Your task to perform on an android device: set default search engine in the chrome app Image 0: 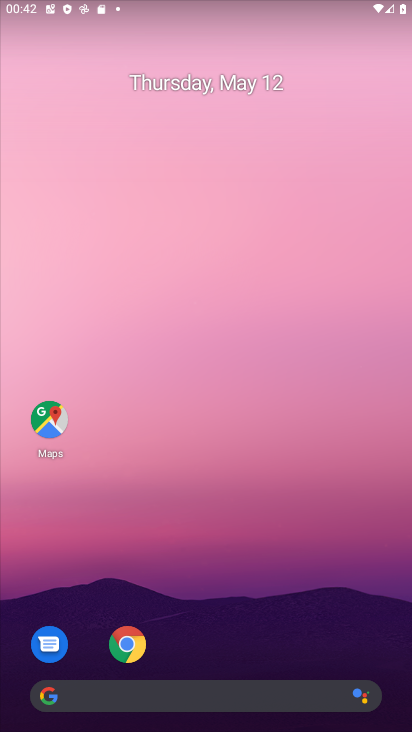
Step 0: click (146, 636)
Your task to perform on an android device: set default search engine in the chrome app Image 1: 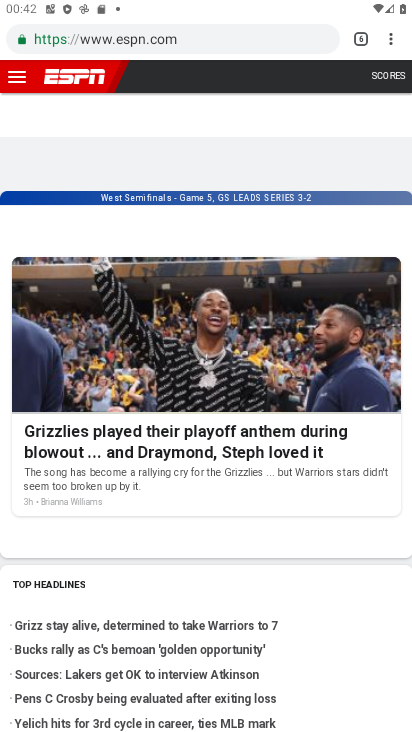
Step 1: click (382, 40)
Your task to perform on an android device: set default search engine in the chrome app Image 2: 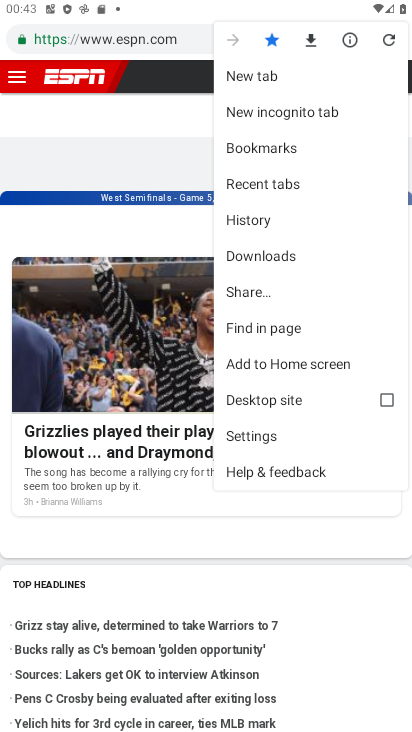
Step 2: click (280, 436)
Your task to perform on an android device: set default search engine in the chrome app Image 3: 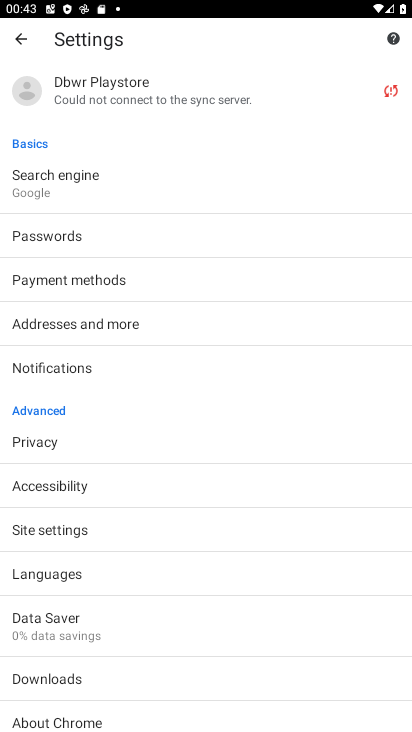
Step 3: click (244, 196)
Your task to perform on an android device: set default search engine in the chrome app Image 4: 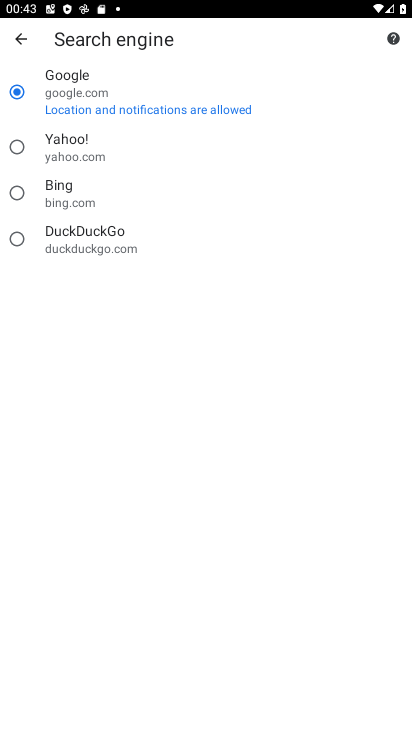
Step 4: click (75, 149)
Your task to perform on an android device: set default search engine in the chrome app Image 5: 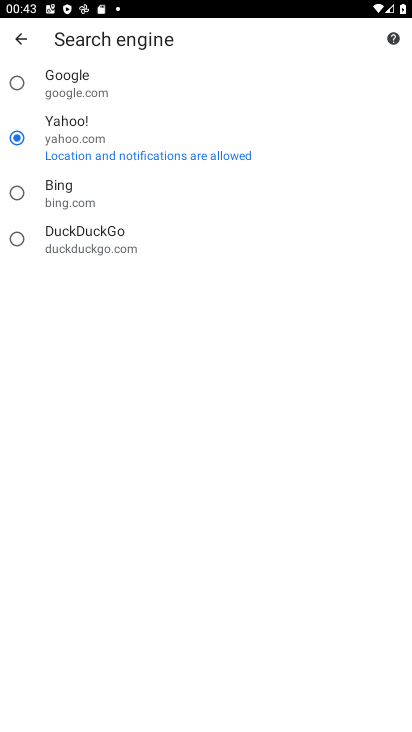
Step 5: task complete